Your task to perform on an android device: Open Chrome and go to settings Image 0: 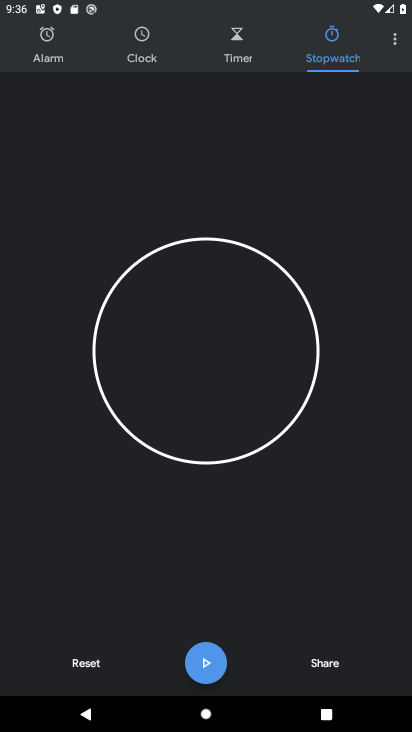
Step 0: press home button
Your task to perform on an android device: Open Chrome and go to settings Image 1: 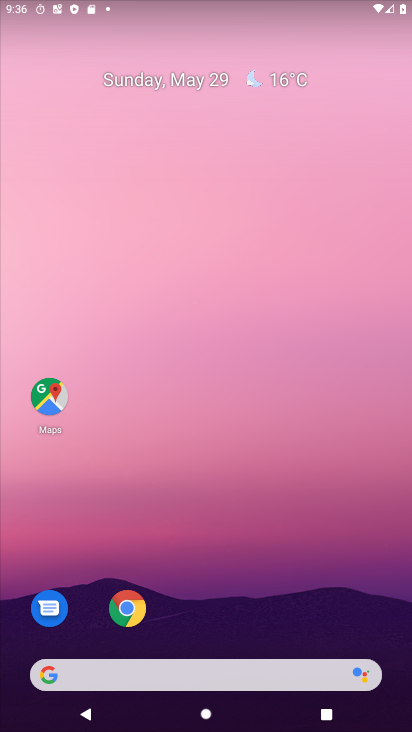
Step 1: drag from (193, 643) to (148, 285)
Your task to perform on an android device: Open Chrome and go to settings Image 2: 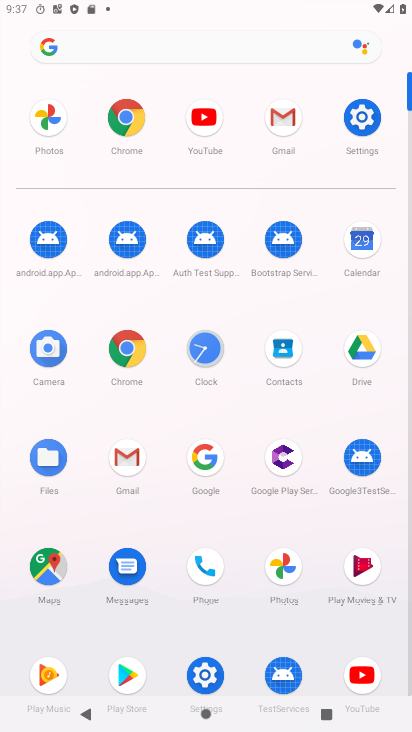
Step 2: click (129, 131)
Your task to perform on an android device: Open Chrome and go to settings Image 3: 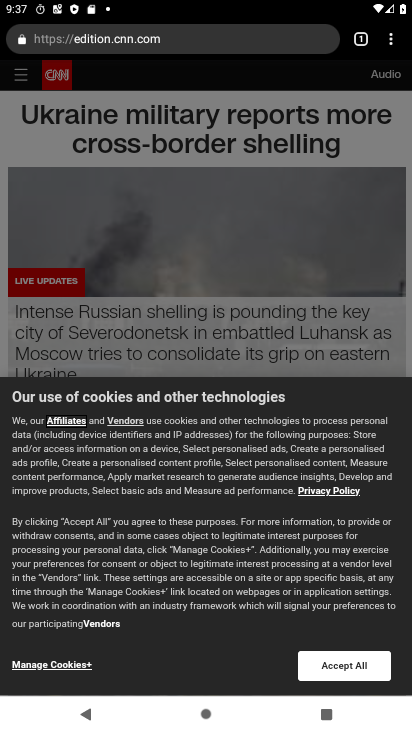
Step 3: click (397, 43)
Your task to perform on an android device: Open Chrome and go to settings Image 4: 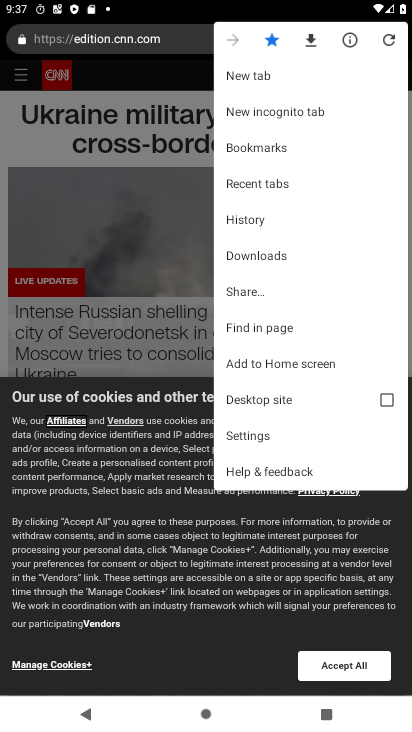
Step 4: click (265, 435)
Your task to perform on an android device: Open Chrome and go to settings Image 5: 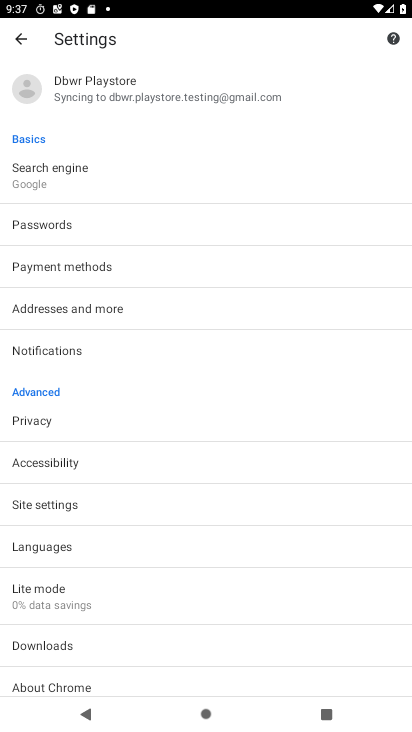
Step 5: task complete